Your task to perform on an android device: see tabs open on other devices in the chrome app Image 0: 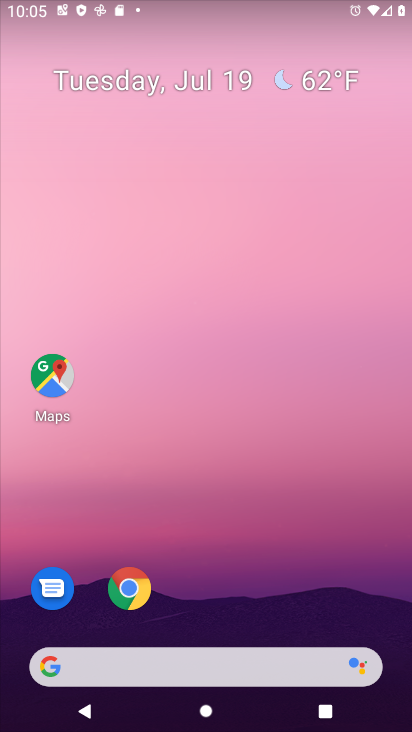
Step 0: drag from (249, 582) to (204, 69)
Your task to perform on an android device: see tabs open on other devices in the chrome app Image 1: 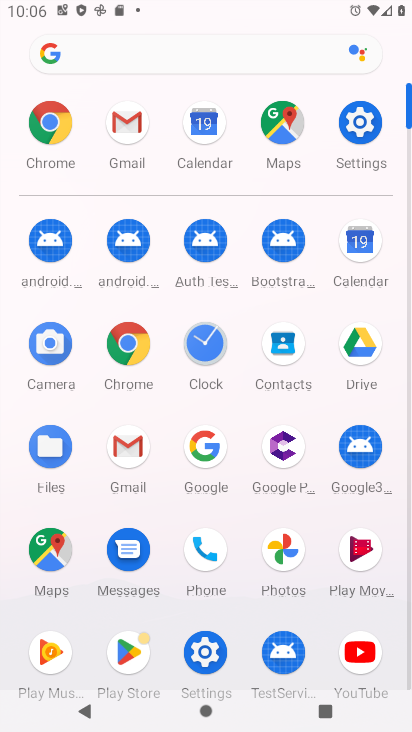
Step 1: click (49, 122)
Your task to perform on an android device: see tabs open on other devices in the chrome app Image 2: 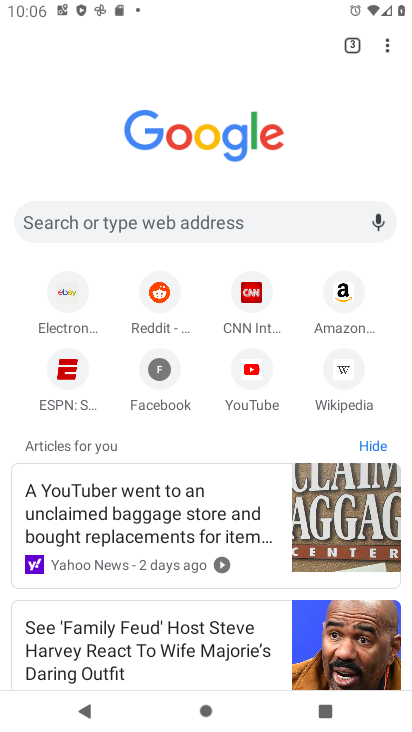
Step 2: task complete